Your task to perform on an android device: open a bookmark in the chrome app Image 0: 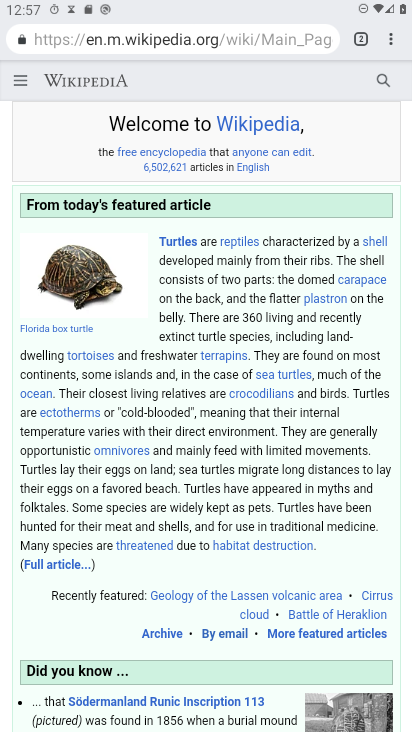
Step 0: click (395, 39)
Your task to perform on an android device: open a bookmark in the chrome app Image 1: 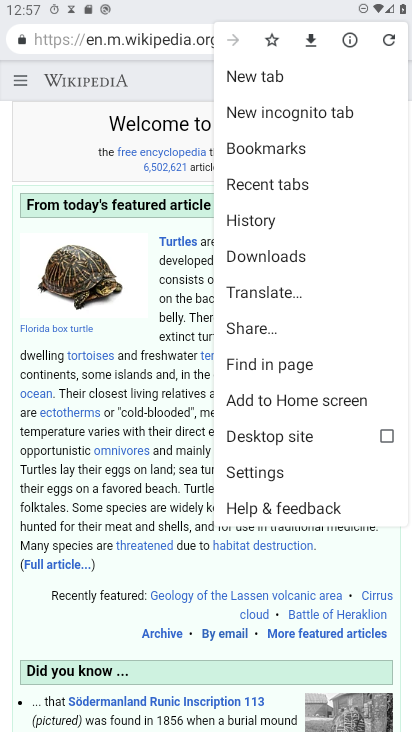
Step 1: click (281, 149)
Your task to perform on an android device: open a bookmark in the chrome app Image 2: 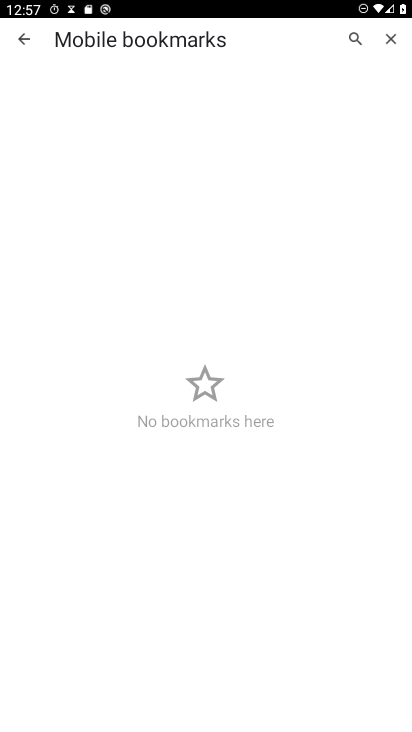
Step 2: task complete